Your task to perform on an android device: Open Google Image 0: 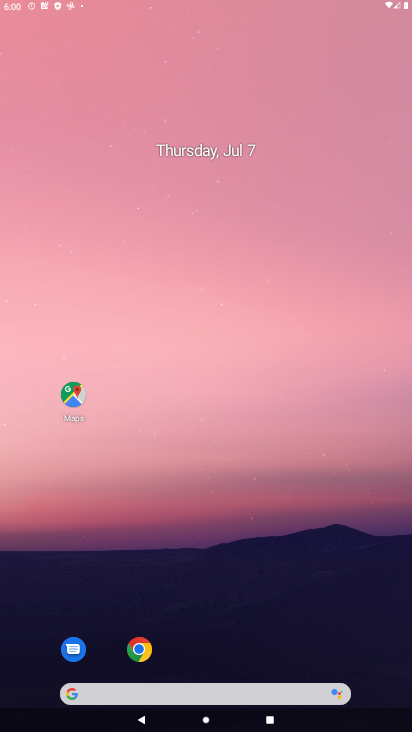
Step 0: drag from (376, 670) to (213, 60)
Your task to perform on an android device: Open Google Image 1: 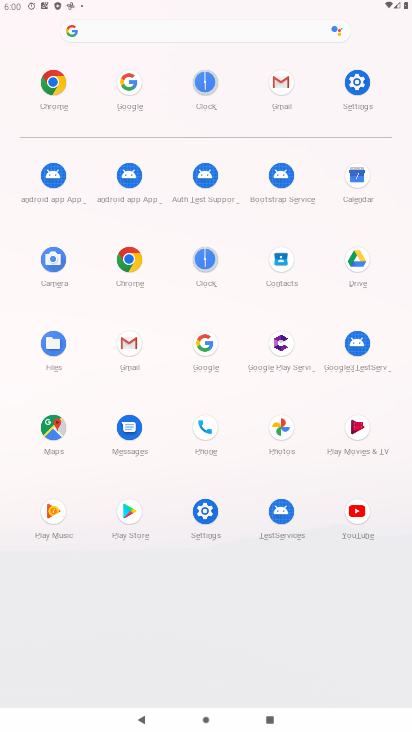
Step 1: click (197, 335)
Your task to perform on an android device: Open Google Image 2: 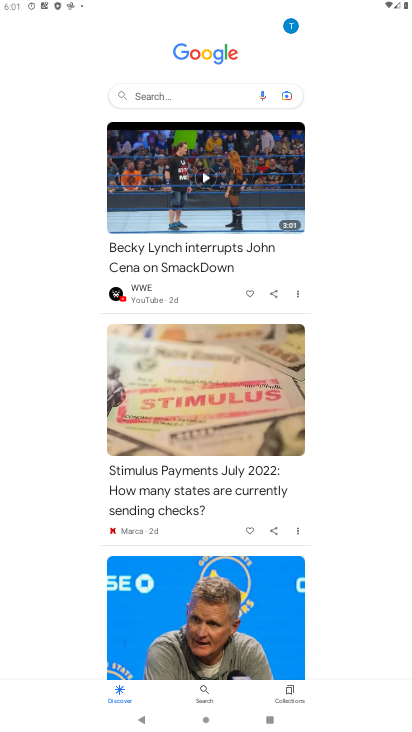
Step 2: task complete